Your task to perform on an android device: Check the weather Image 0: 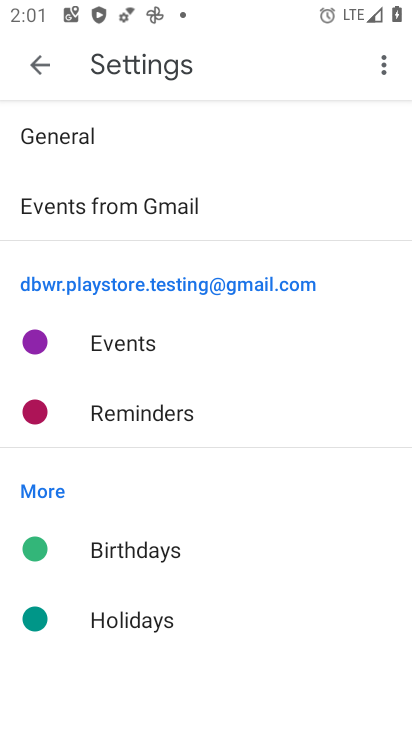
Step 0: press home button
Your task to perform on an android device: Check the weather Image 1: 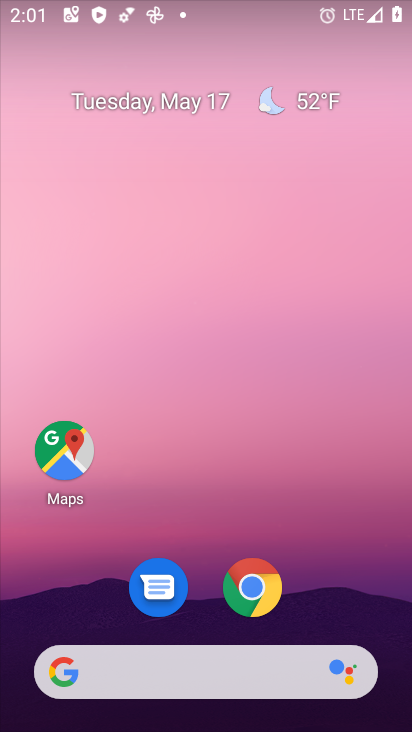
Step 1: click (223, 682)
Your task to perform on an android device: Check the weather Image 2: 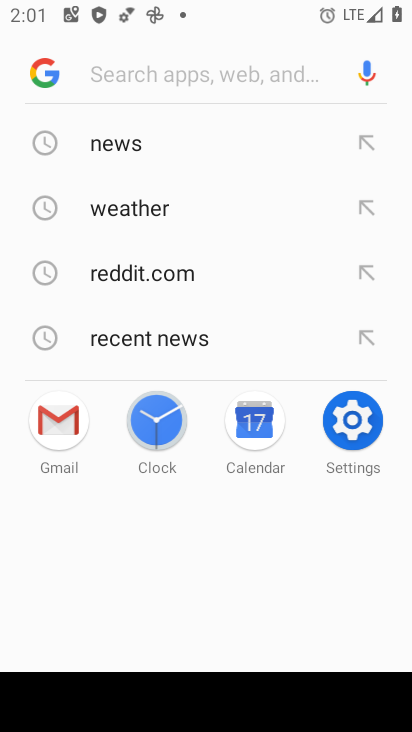
Step 2: click (168, 210)
Your task to perform on an android device: Check the weather Image 3: 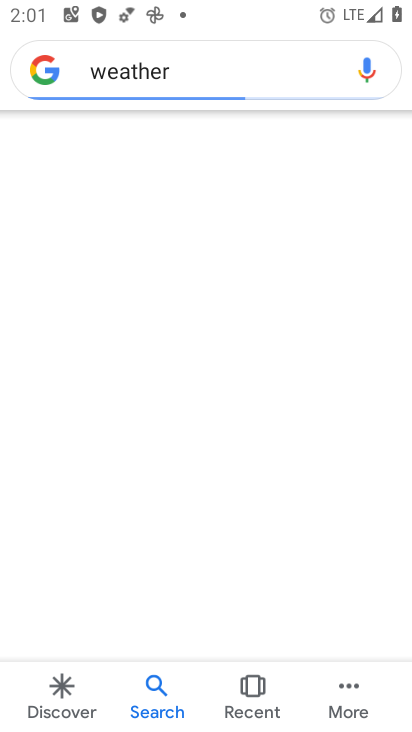
Step 3: task complete